Your task to perform on an android device: Go to Yahoo.com Image 0: 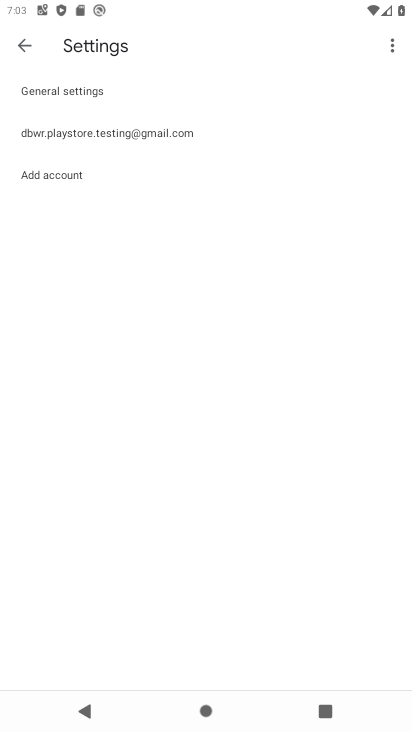
Step 0: drag from (377, 626) to (324, 71)
Your task to perform on an android device: Go to Yahoo.com Image 1: 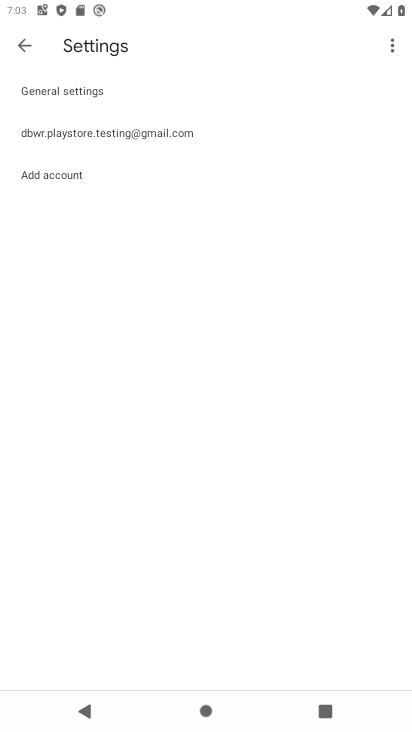
Step 1: press home button
Your task to perform on an android device: Go to Yahoo.com Image 2: 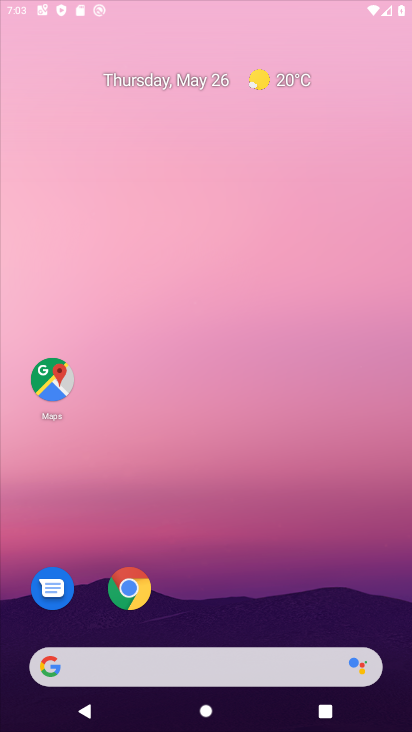
Step 2: drag from (356, 634) to (250, 0)
Your task to perform on an android device: Go to Yahoo.com Image 3: 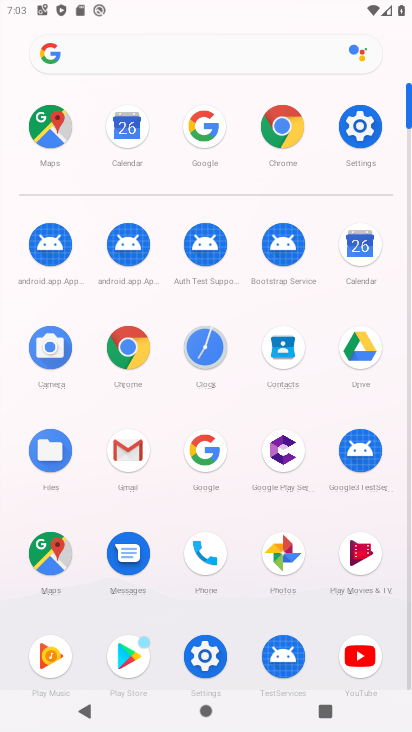
Step 3: click (209, 437)
Your task to perform on an android device: Go to Yahoo.com Image 4: 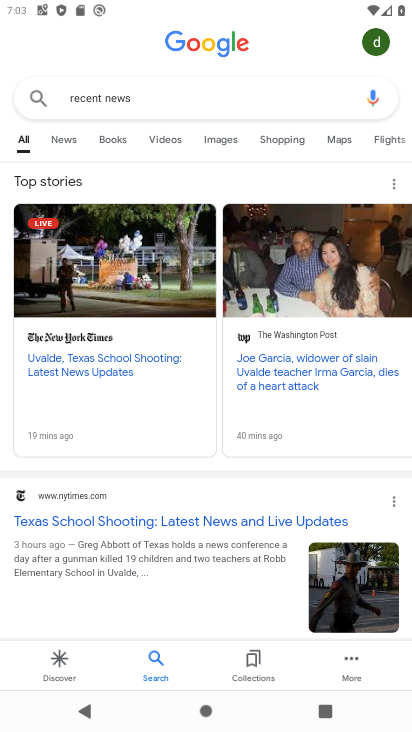
Step 4: press back button
Your task to perform on an android device: Go to Yahoo.com Image 5: 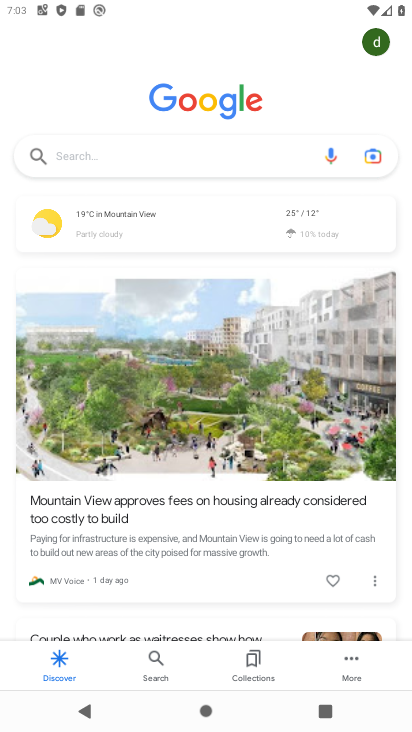
Step 5: click (102, 156)
Your task to perform on an android device: Go to Yahoo.com Image 6: 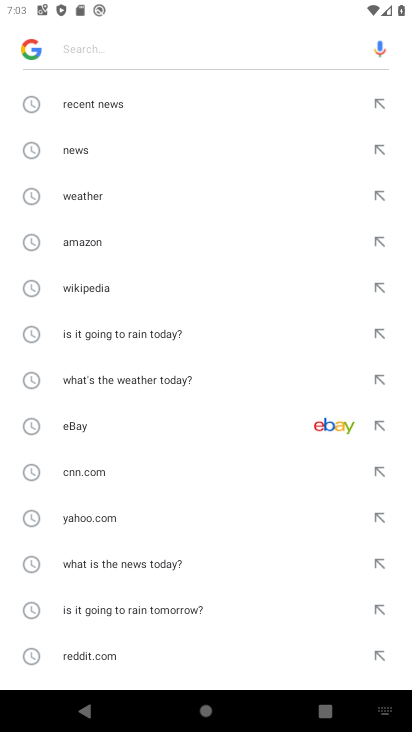
Step 6: click (109, 515)
Your task to perform on an android device: Go to Yahoo.com Image 7: 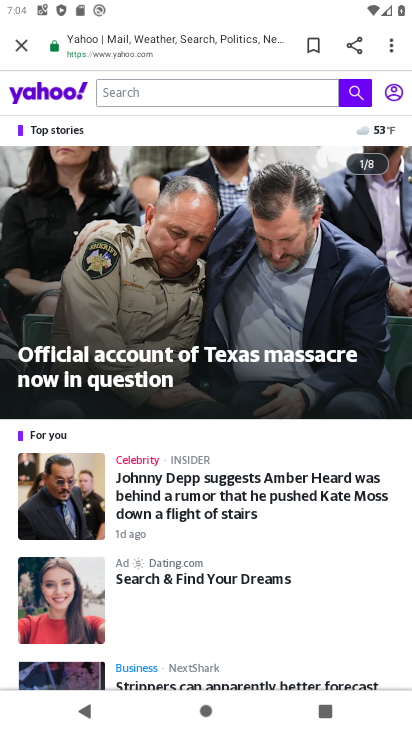
Step 7: task complete